Your task to perform on an android device: turn on the 24-hour format for clock Image 0: 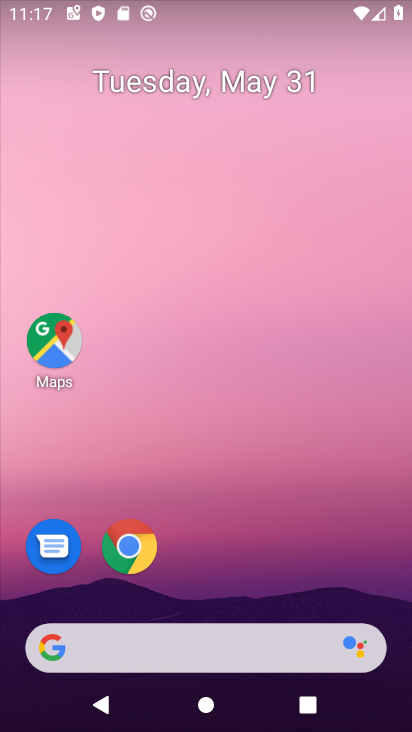
Step 0: drag from (253, 587) to (222, 173)
Your task to perform on an android device: turn on the 24-hour format for clock Image 1: 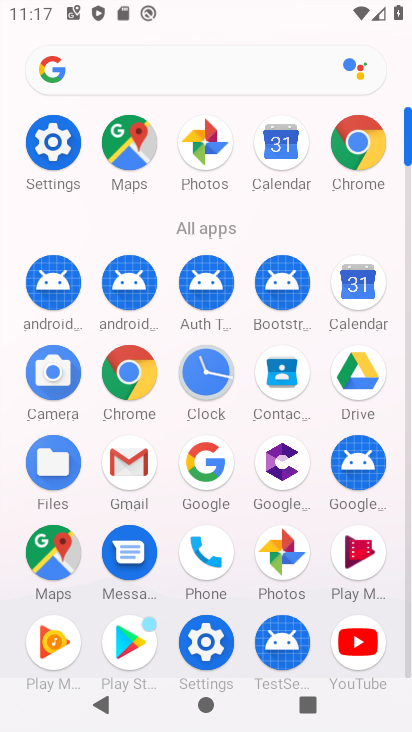
Step 1: click (218, 366)
Your task to perform on an android device: turn on the 24-hour format for clock Image 2: 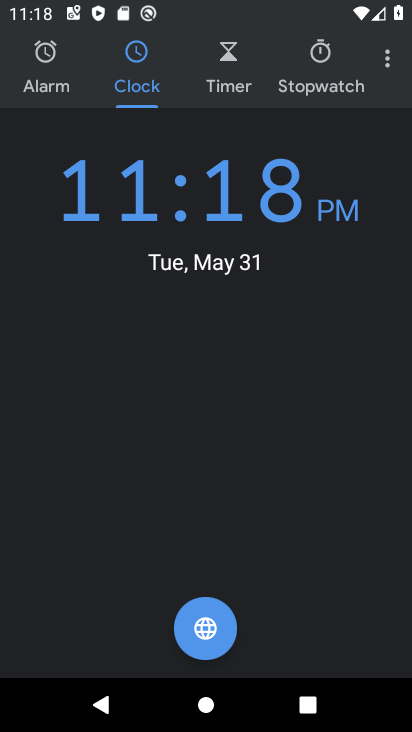
Step 2: click (397, 60)
Your task to perform on an android device: turn on the 24-hour format for clock Image 3: 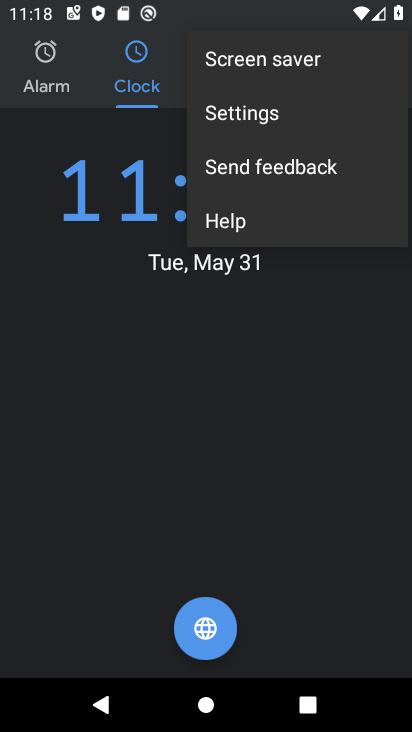
Step 3: click (359, 110)
Your task to perform on an android device: turn on the 24-hour format for clock Image 4: 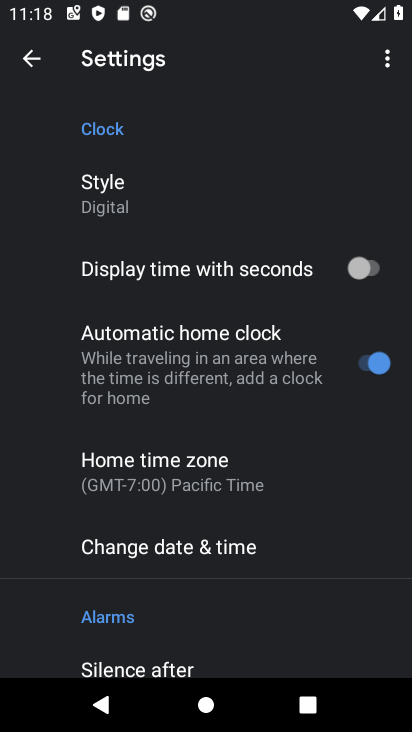
Step 4: click (279, 555)
Your task to perform on an android device: turn on the 24-hour format for clock Image 5: 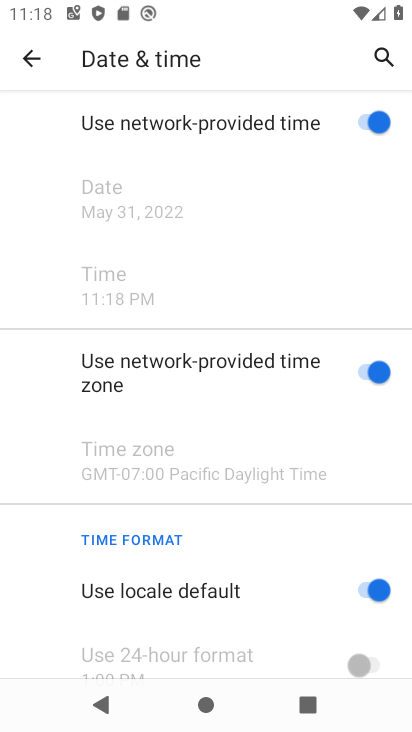
Step 5: drag from (235, 611) to (224, 377)
Your task to perform on an android device: turn on the 24-hour format for clock Image 6: 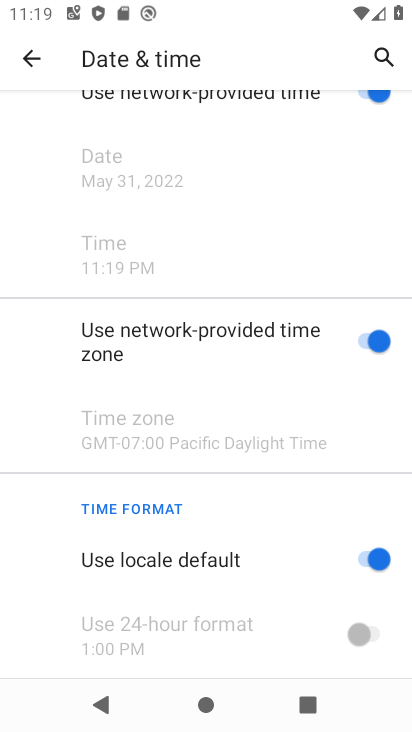
Step 6: click (378, 563)
Your task to perform on an android device: turn on the 24-hour format for clock Image 7: 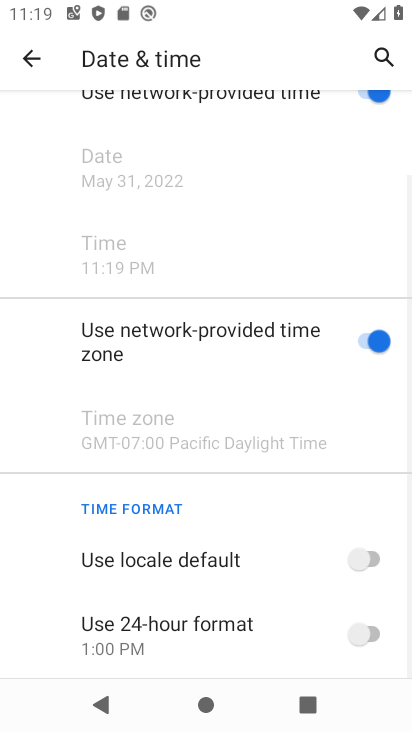
Step 7: click (375, 634)
Your task to perform on an android device: turn on the 24-hour format for clock Image 8: 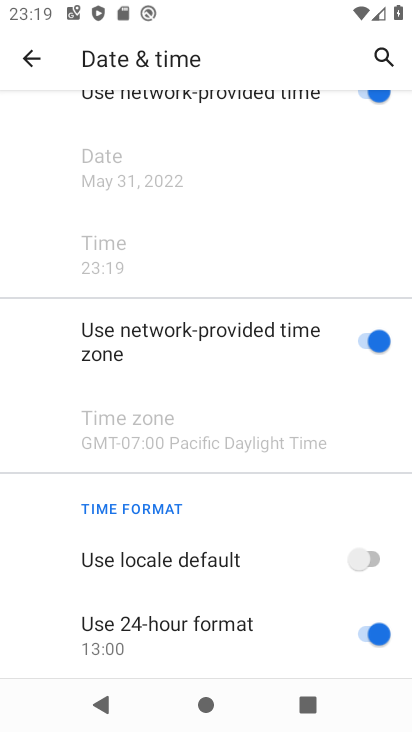
Step 8: task complete